Your task to perform on an android device: delete browsing data in the chrome app Image 0: 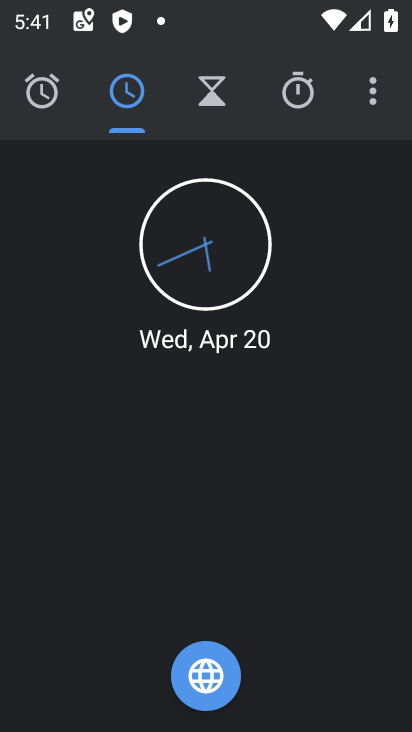
Step 0: press home button
Your task to perform on an android device: delete browsing data in the chrome app Image 1: 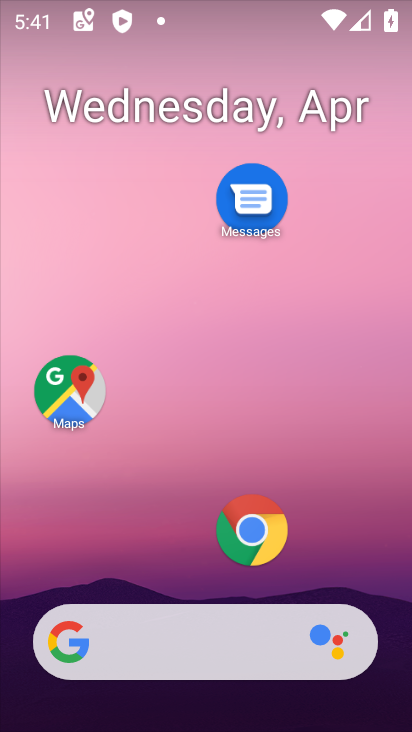
Step 1: click (251, 529)
Your task to perform on an android device: delete browsing data in the chrome app Image 2: 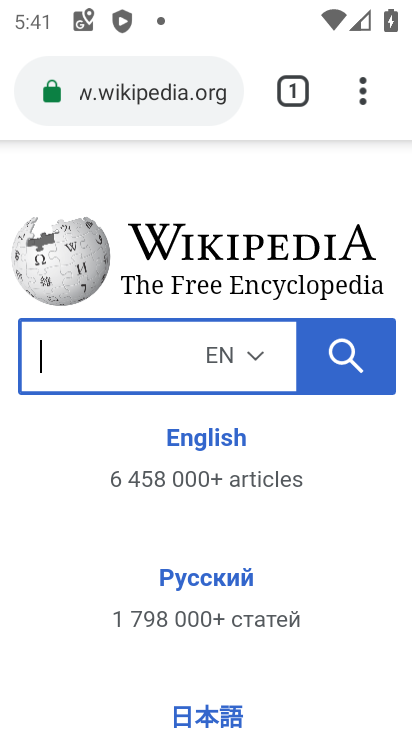
Step 2: click (362, 101)
Your task to perform on an android device: delete browsing data in the chrome app Image 3: 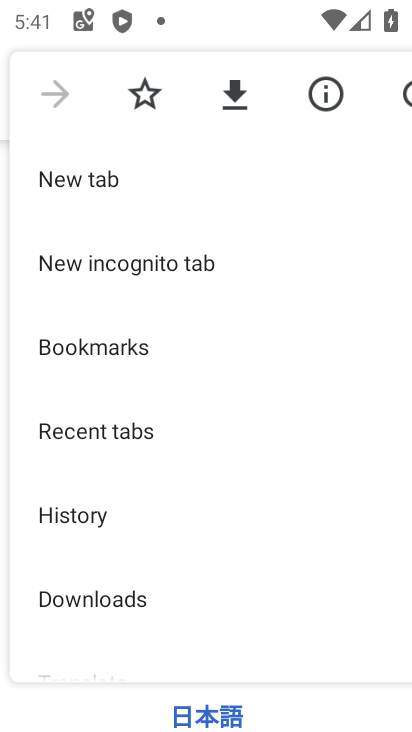
Step 3: drag from (132, 514) to (166, 325)
Your task to perform on an android device: delete browsing data in the chrome app Image 4: 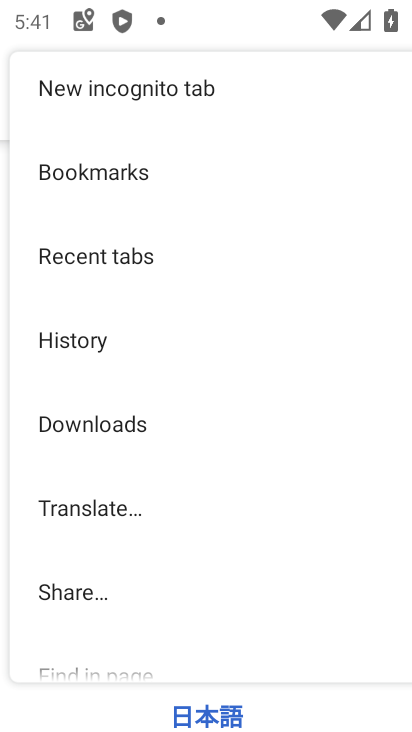
Step 4: drag from (144, 572) to (191, 334)
Your task to perform on an android device: delete browsing data in the chrome app Image 5: 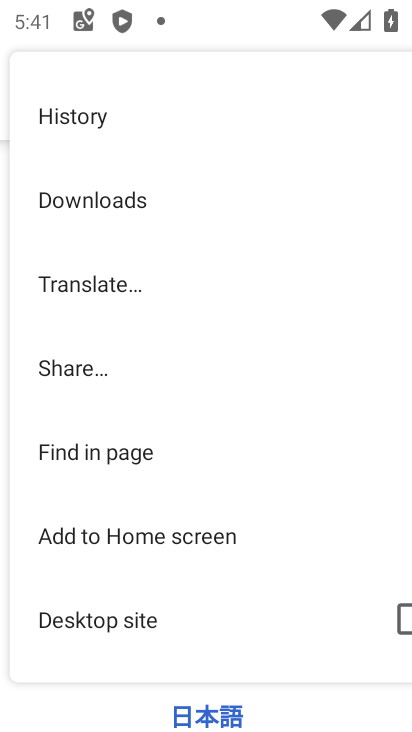
Step 5: drag from (159, 573) to (229, 313)
Your task to perform on an android device: delete browsing data in the chrome app Image 6: 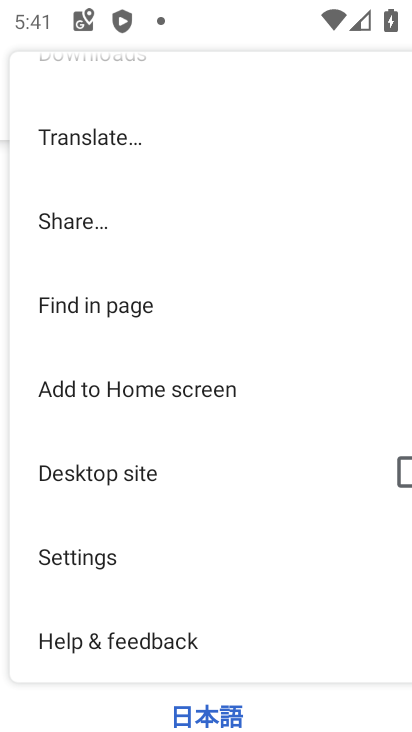
Step 6: click (106, 562)
Your task to perform on an android device: delete browsing data in the chrome app Image 7: 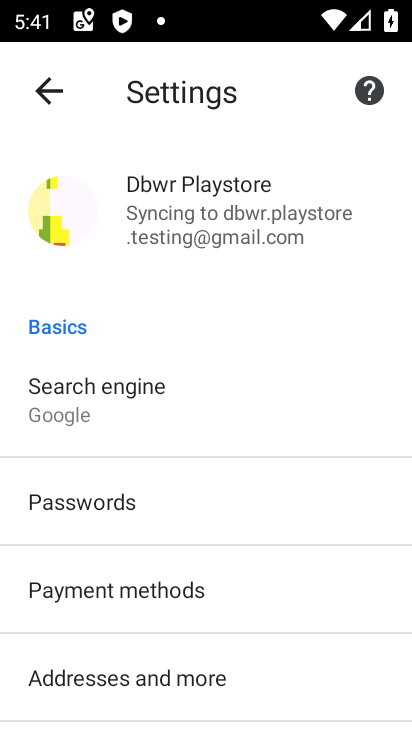
Step 7: drag from (235, 592) to (284, 376)
Your task to perform on an android device: delete browsing data in the chrome app Image 8: 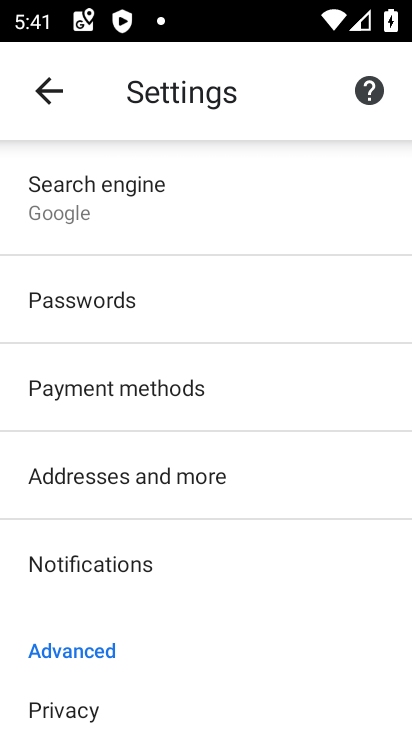
Step 8: drag from (176, 606) to (259, 422)
Your task to perform on an android device: delete browsing data in the chrome app Image 9: 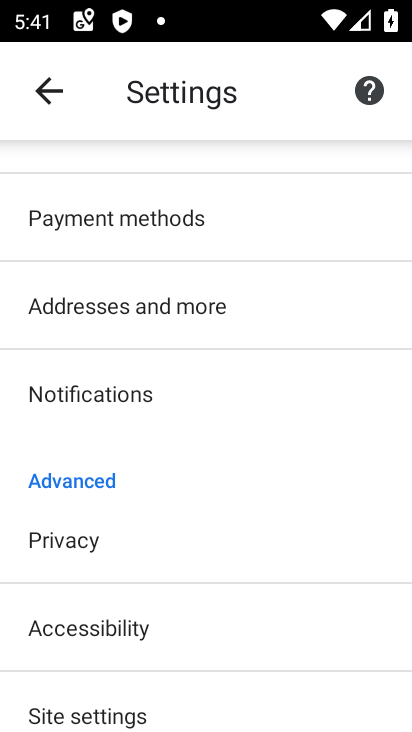
Step 9: click (58, 533)
Your task to perform on an android device: delete browsing data in the chrome app Image 10: 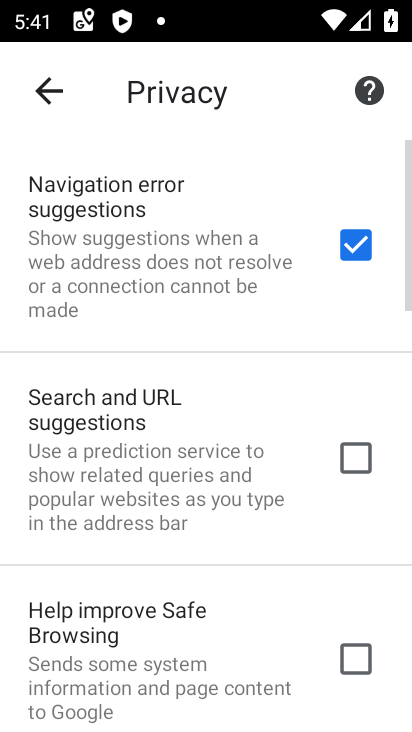
Step 10: drag from (188, 552) to (260, 306)
Your task to perform on an android device: delete browsing data in the chrome app Image 11: 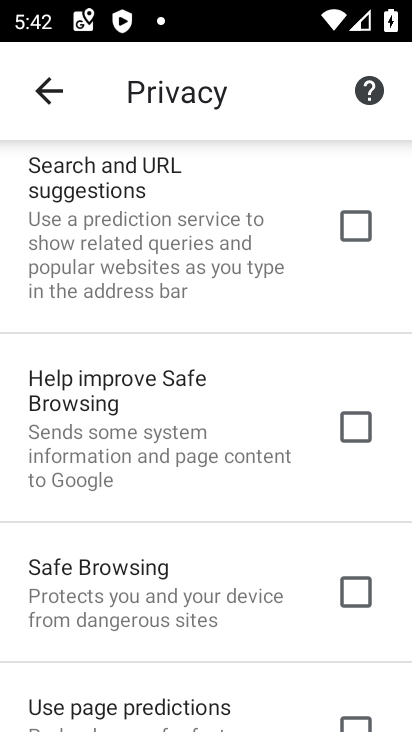
Step 11: drag from (169, 529) to (211, 356)
Your task to perform on an android device: delete browsing data in the chrome app Image 12: 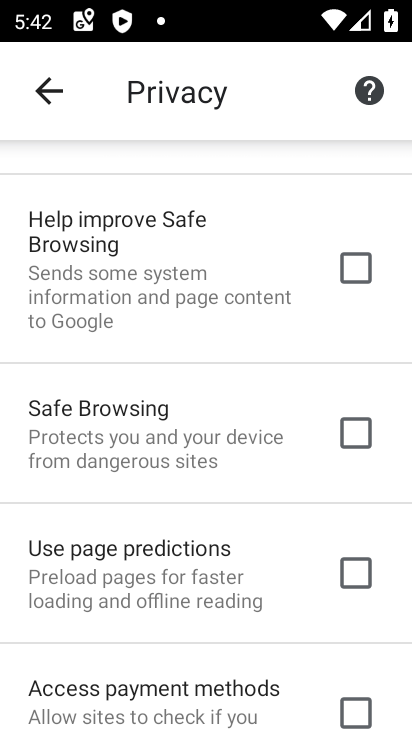
Step 12: drag from (176, 512) to (208, 402)
Your task to perform on an android device: delete browsing data in the chrome app Image 13: 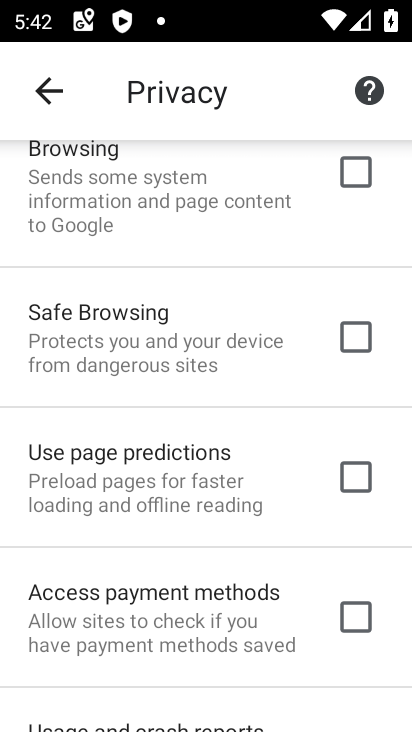
Step 13: drag from (165, 594) to (183, 409)
Your task to perform on an android device: delete browsing data in the chrome app Image 14: 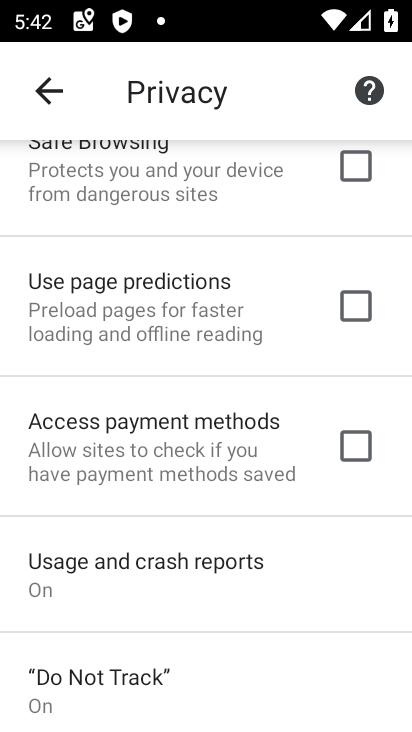
Step 14: drag from (165, 599) to (208, 387)
Your task to perform on an android device: delete browsing data in the chrome app Image 15: 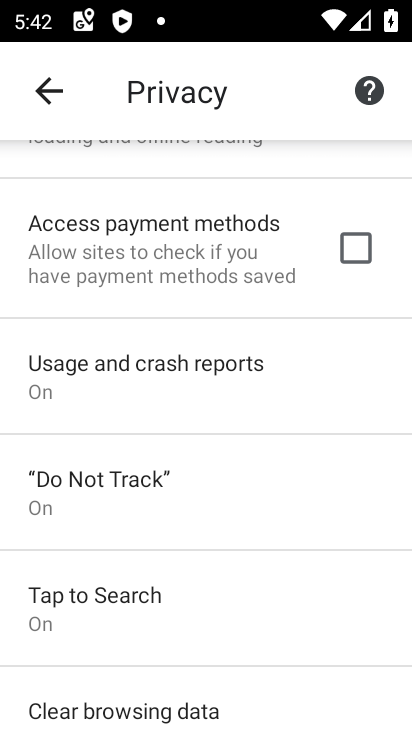
Step 15: drag from (186, 531) to (246, 310)
Your task to perform on an android device: delete browsing data in the chrome app Image 16: 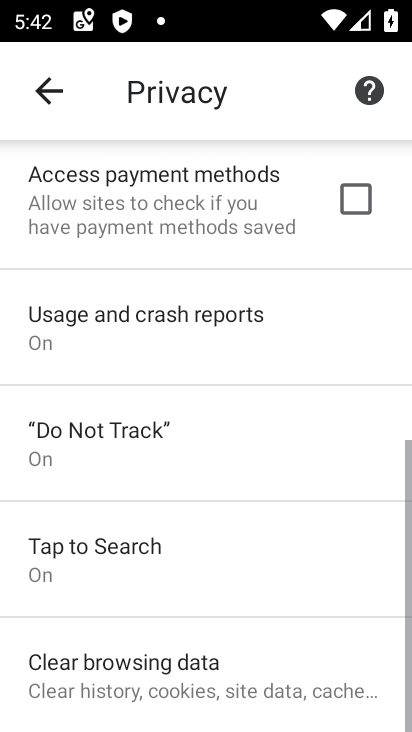
Step 16: click (136, 661)
Your task to perform on an android device: delete browsing data in the chrome app Image 17: 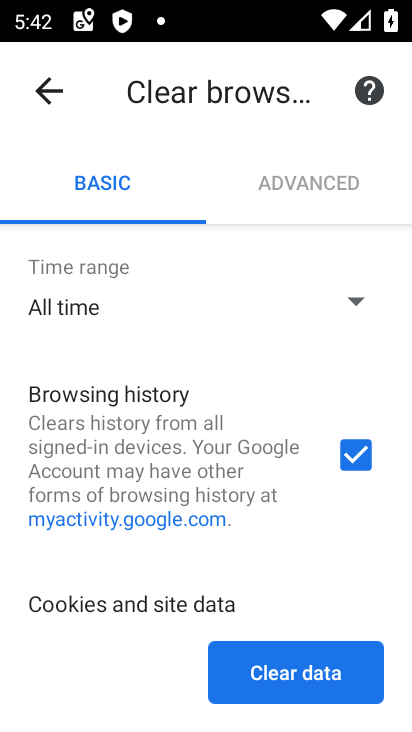
Step 17: click (283, 676)
Your task to perform on an android device: delete browsing data in the chrome app Image 18: 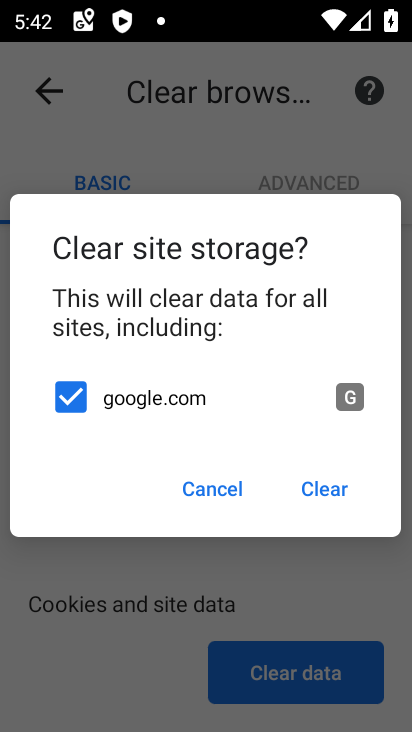
Step 18: click (314, 496)
Your task to perform on an android device: delete browsing data in the chrome app Image 19: 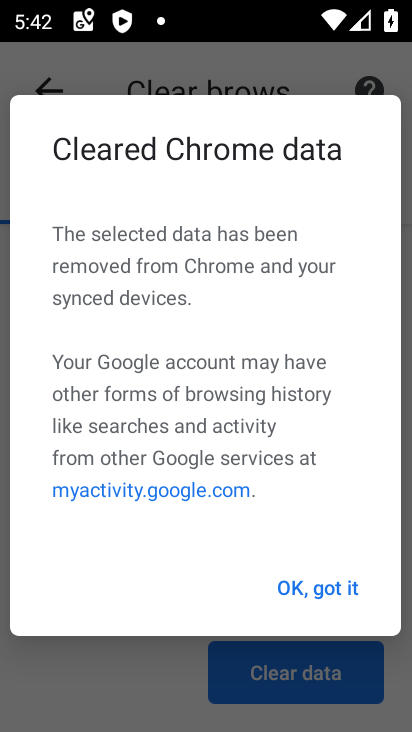
Step 19: click (352, 584)
Your task to perform on an android device: delete browsing data in the chrome app Image 20: 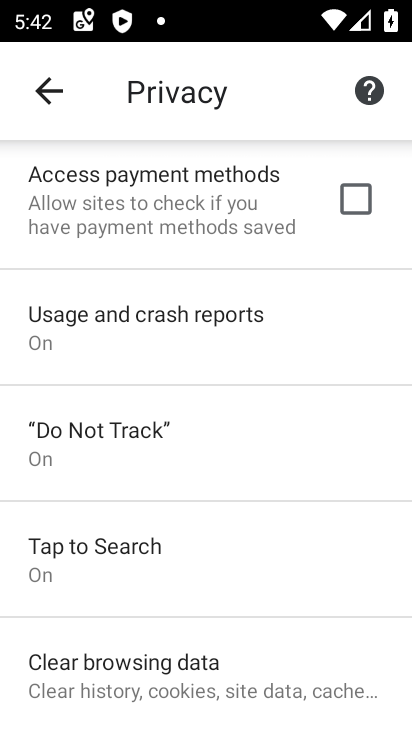
Step 20: task complete